Your task to perform on an android device: Go to battery settings Image 0: 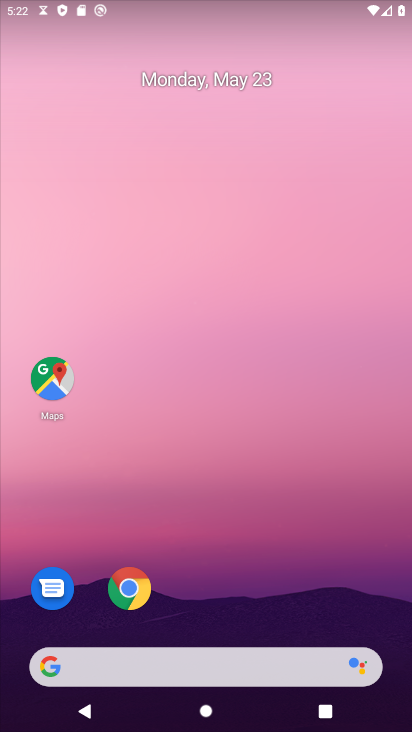
Step 0: drag from (225, 508) to (225, 4)
Your task to perform on an android device: Go to battery settings Image 1: 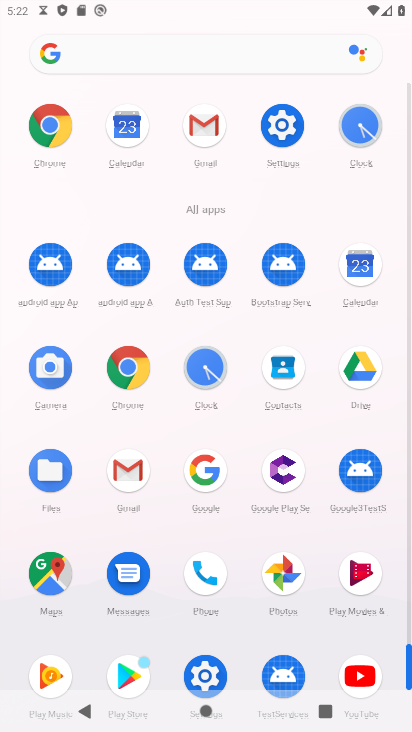
Step 1: drag from (7, 542) to (6, 201)
Your task to perform on an android device: Go to battery settings Image 2: 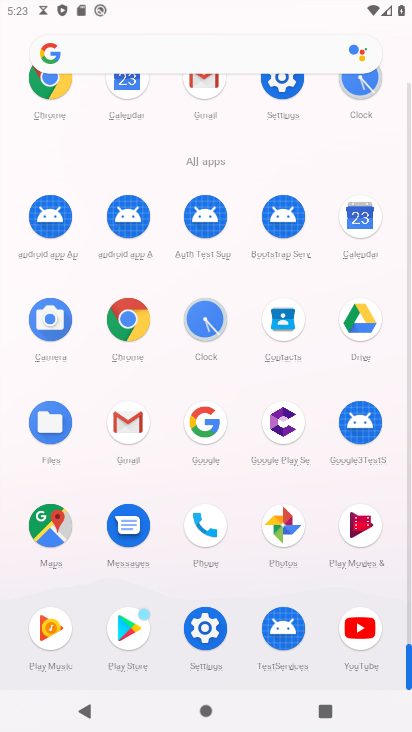
Step 2: click (203, 627)
Your task to perform on an android device: Go to battery settings Image 3: 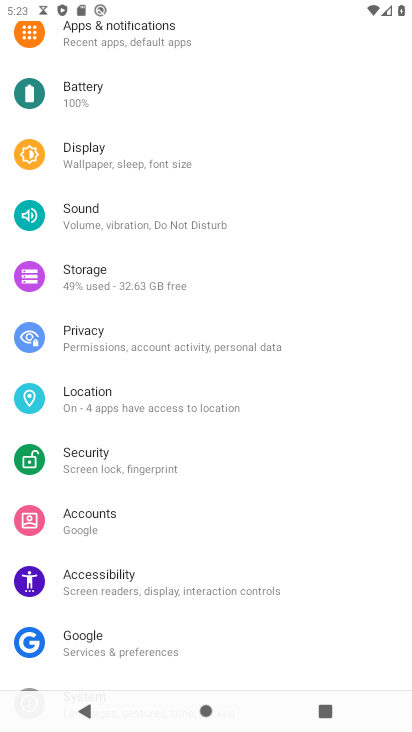
Step 3: drag from (256, 105) to (257, 549)
Your task to perform on an android device: Go to battery settings Image 4: 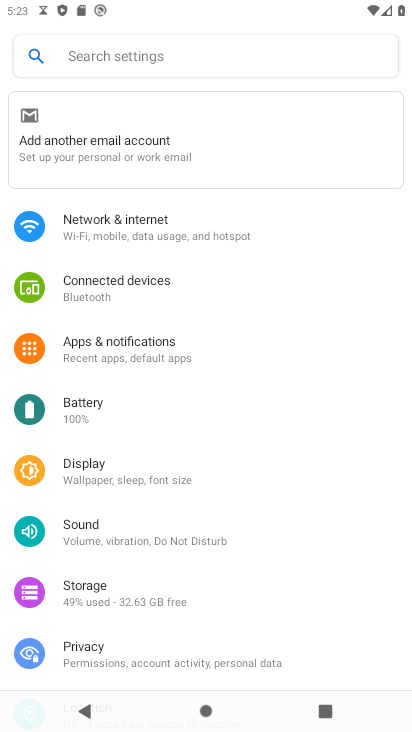
Step 4: click (105, 414)
Your task to perform on an android device: Go to battery settings Image 5: 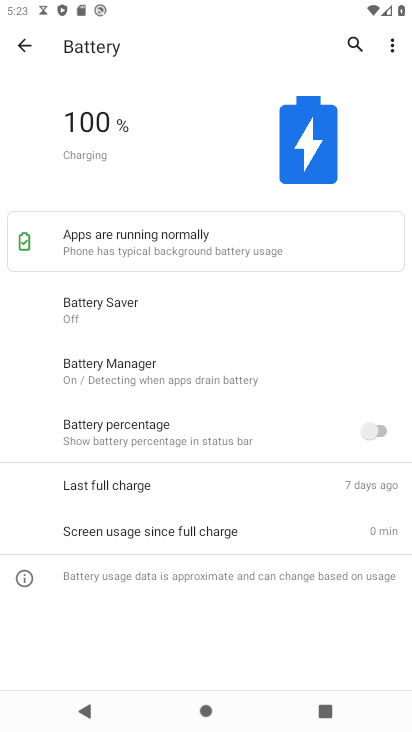
Step 5: task complete